Your task to perform on an android device: turn on translation in the chrome app Image 0: 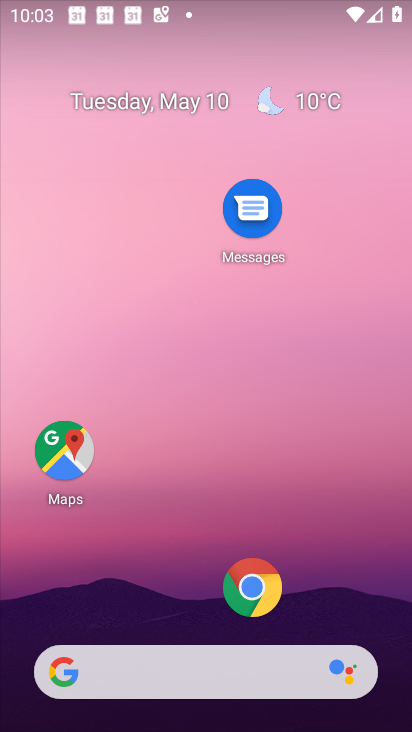
Step 0: click (260, 581)
Your task to perform on an android device: turn on translation in the chrome app Image 1: 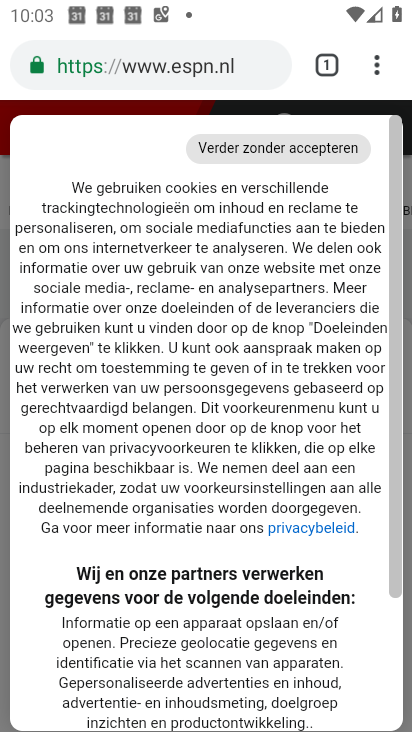
Step 1: click (379, 68)
Your task to perform on an android device: turn on translation in the chrome app Image 2: 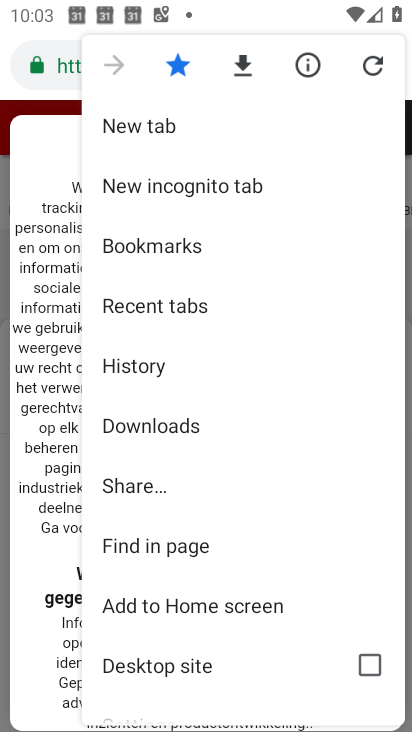
Step 2: drag from (171, 658) to (224, 227)
Your task to perform on an android device: turn on translation in the chrome app Image 3: 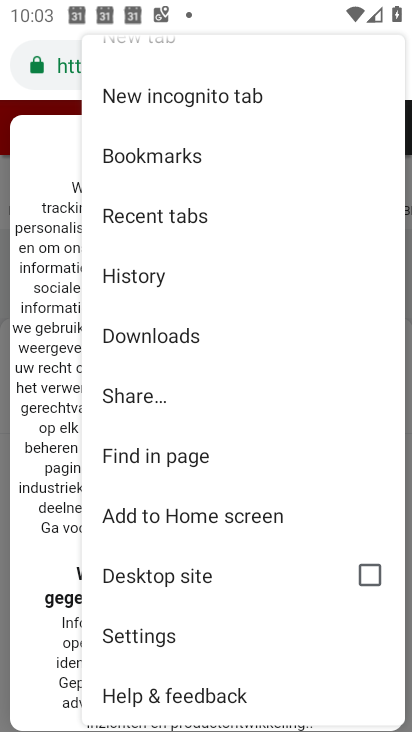
Step 3: click (163, 648)
Your task to perform on an android device: turn on translation in the chrome app Image 4: 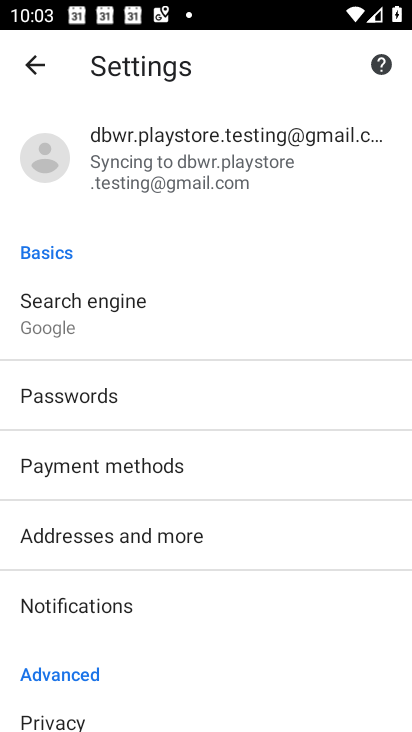
Step 4: drag from (169, 614) to (216, 210)
Your task to perform on an android device: turn on translation in the chrome app Image 5: 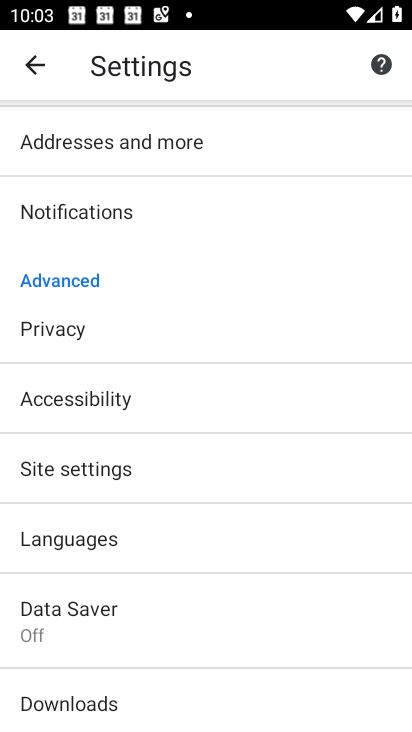
Step 5: click (96, 553)
Your task to perform on an android device: turn on translation in the chrome app Image 6: 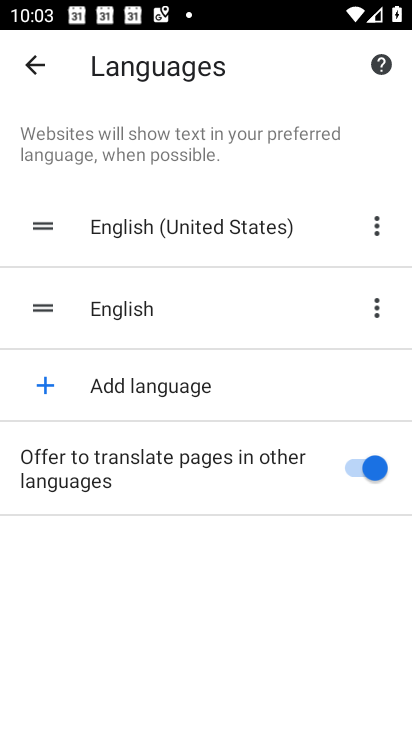
Step 6: task complete